Your task to perform on an android device: Open battery settings Image 0: 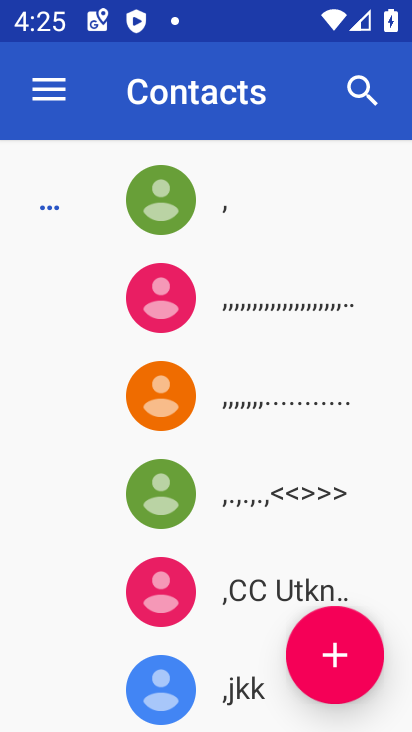
Step 0: press home button
Your task to perform on an android device: Open battery settings Image 1: 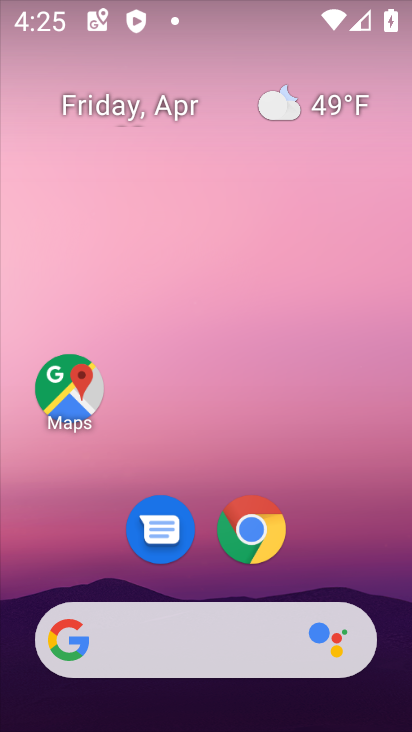
Step 1: drag from (203, 722) to (199, 191)
Your task to perform on an android device: Open battery settings Image 2: 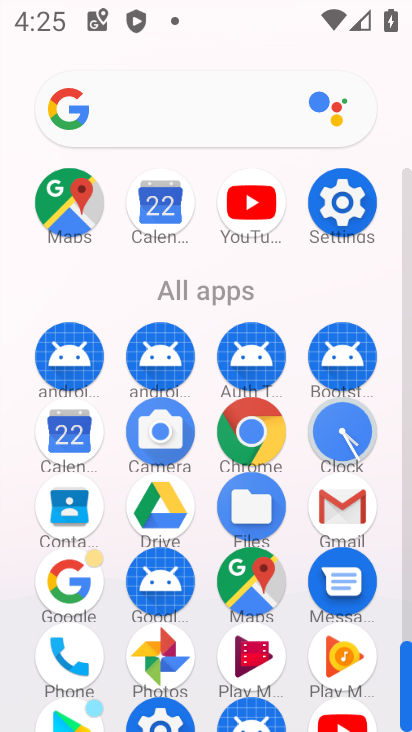
Step 2: click (346, 193)
Your task to perform on an android device: Open battery settings Image 3: 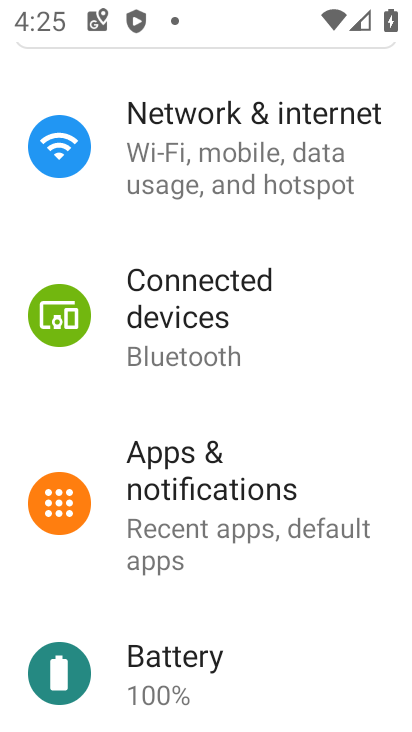
Step 3: click (172, 654)
Your task to perform on an android device: Open battery settings Image 4: 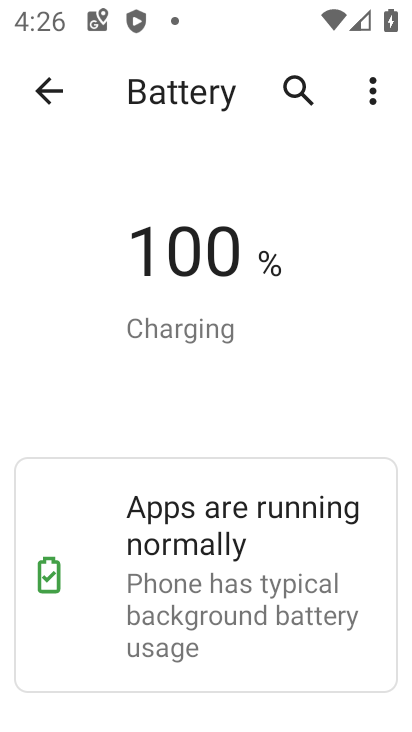
Step 4: task complete